Your task to perform on an android device: open chrome and create a bookmark for the current page Image 0: 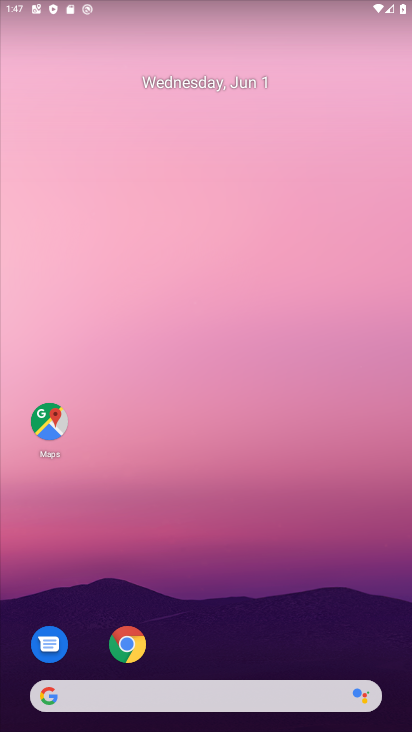
Step 0: click (124, 643)
Your task to perform on an android device: open chrome and create a bookmark for the current page Image 1: 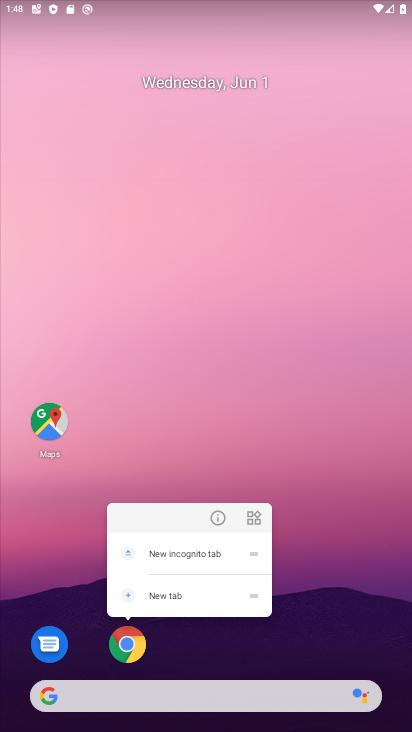
Step 1: click (210, 524)
Your task to perform on an android device: open chrome and create a bookmark for the current page Image 2: 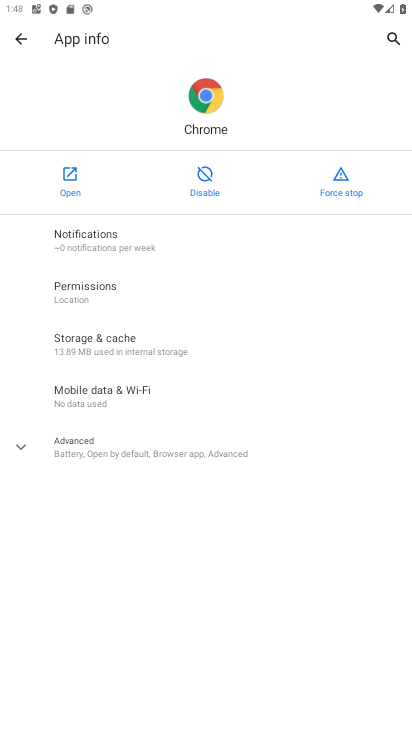
Step 2: click (78, 189)
Your task to perform on an android device: open chrome and create a bookmark for the current page Image 3: 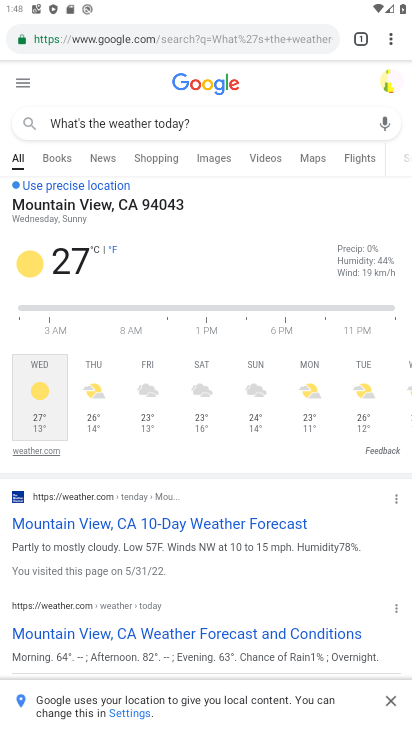
Step 3: click (394, 35)
Your task to perform on an android device: open chrome and create a bookmark for the current page Image 4: 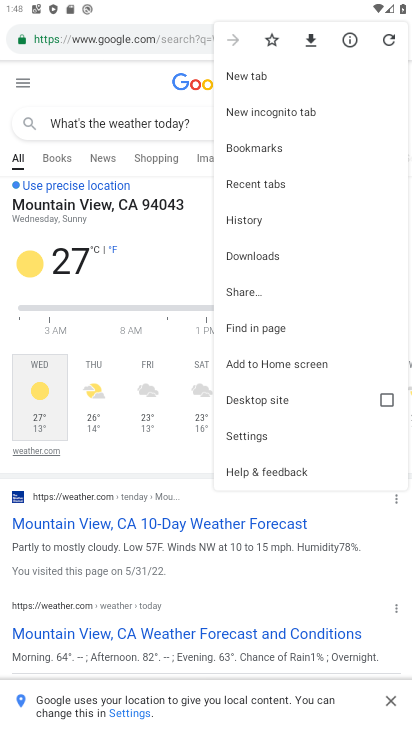
Step 4: click (262, 38)
Your task to perform on an android device: open chrome and create a bookmark for the current page Image 5: 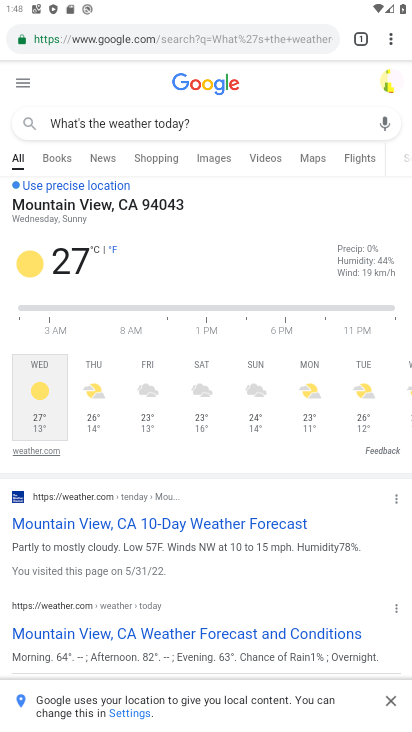
Step 5: task complete